Your task to perform on an android device: turn off wifi Image 0: 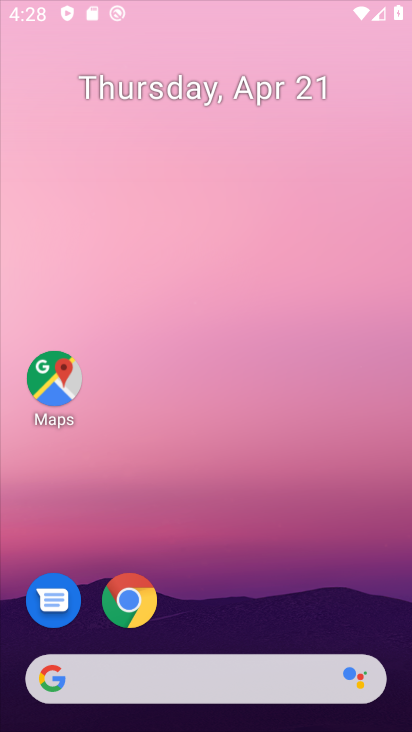
Step 0: click (289, 135)
Your task to perform on an android device: turn off wifi Image 1: 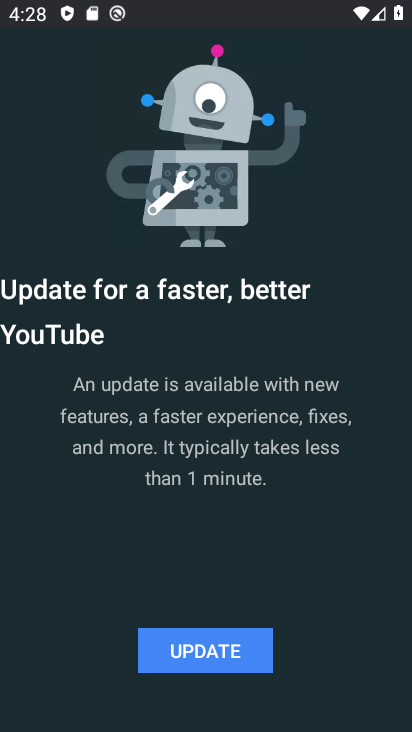
Step 1: press home button
Your task to perform on an android device: turn off wifi Image 2: 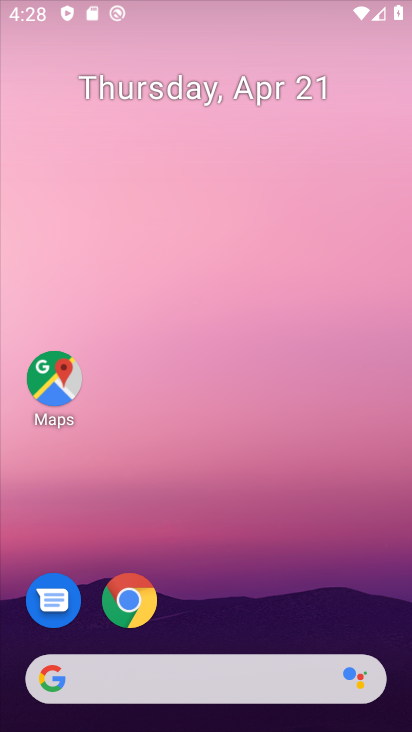
Step 2: drag from (304, 619) to (300, 30)
Your task to perform on an android device: turn off wifi Image 3: 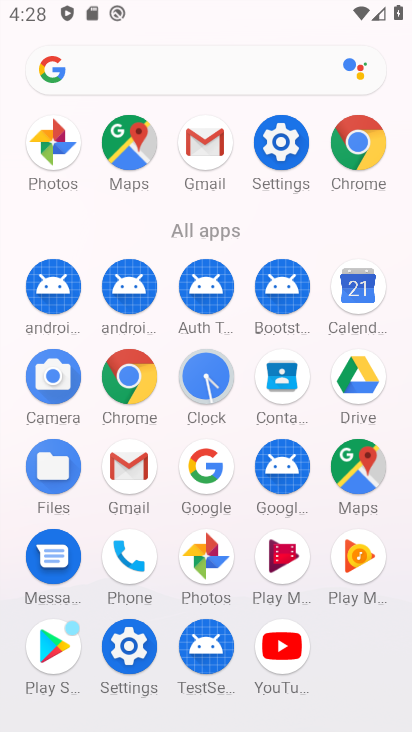
Step 3: click (271, 150)
Your task to perform on an android device: turn off wifi Image 4: 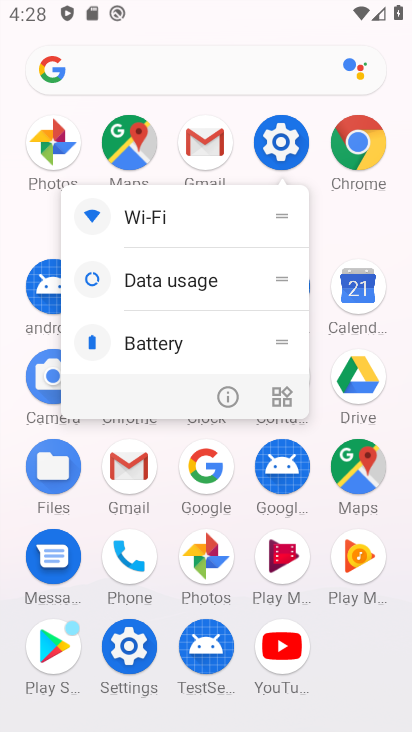
Step 4: click (271, 150)
Your task to perform on an android device: turn off wifi Image 5: 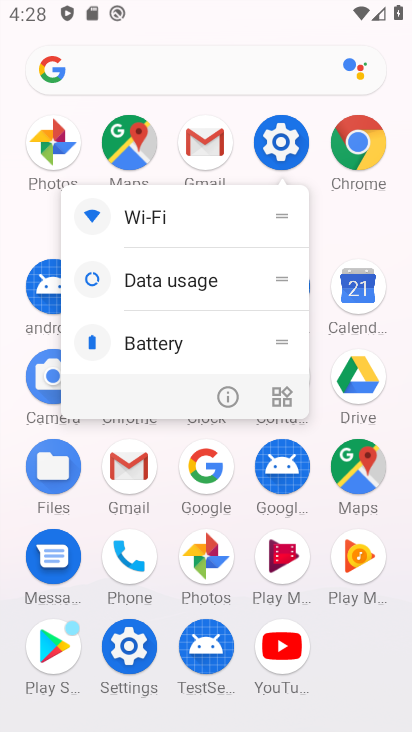
Step 5: click (267, 150)
Your task to perform on an android device: turn off wifi Image 6: 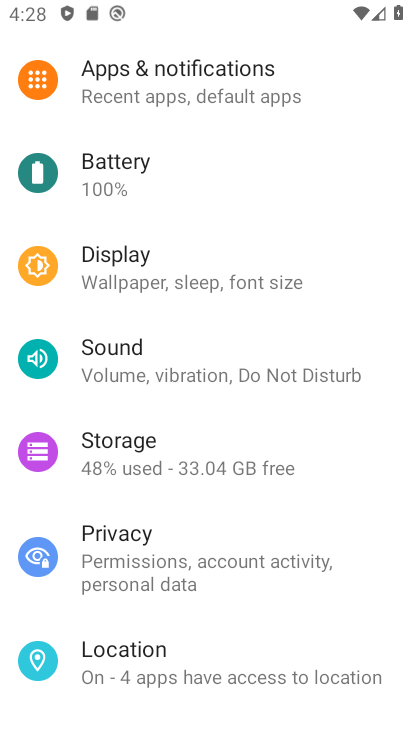
Step 6: drag from (224, 128) to (273, 587)
Your task to perform on an android device: turn off wifi Image 7: 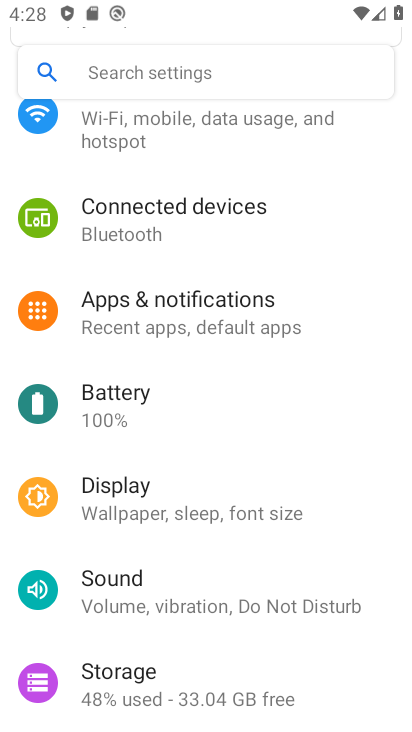
Step 7: click (223, 142)
Your task to perform on an android device: turn off wifi Image 8: 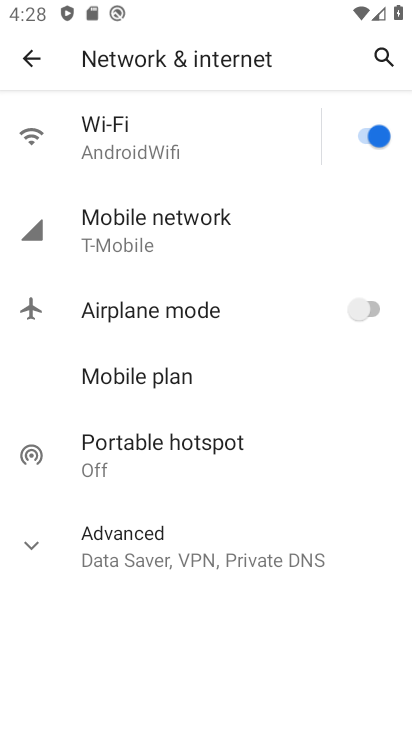
Step 8: click (362, 147)
Your task to perform on an android device: turn off wifi Image 9: 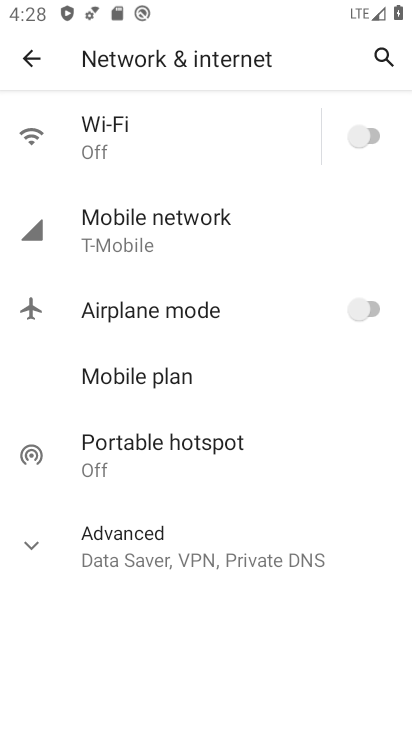
Step 9: task complete